Your task to perform on an android device: clear all cookies in the chrome app Image 0: 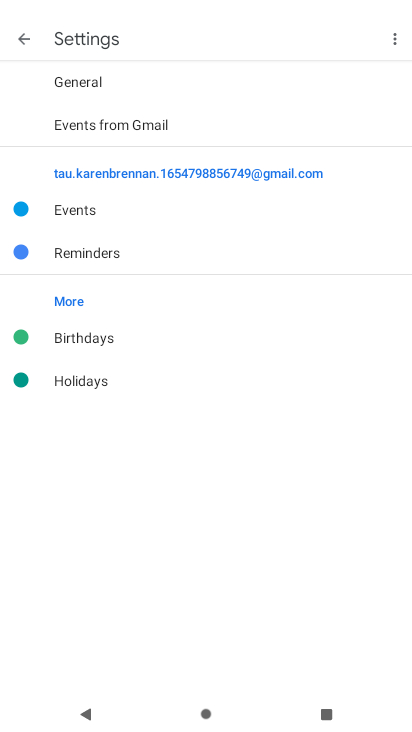
Step 0: press home button
Your task to perform on an android device: clear all cookies in the chrome app Image 1: 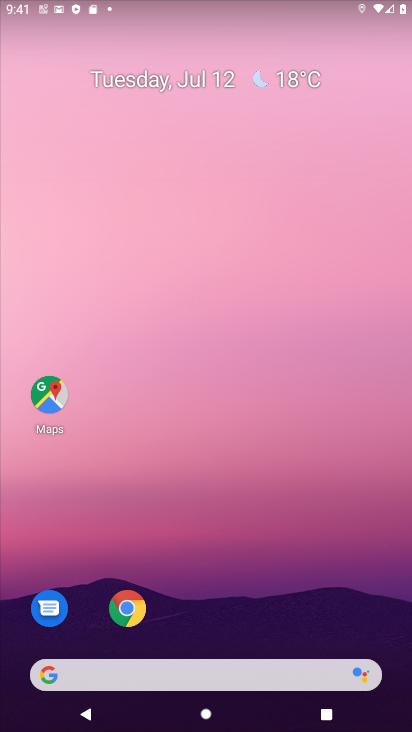
Step 1: click (127, 607)
Your task to perform on an android device: clear all cookies in the chrome app Image 2: 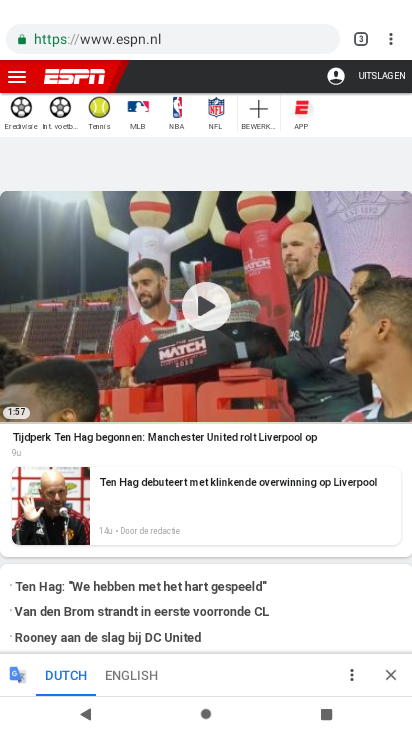
Step 2: click (392, 37)
Your task to perform on an android device: clear all cookies in the chrome app Image 3: 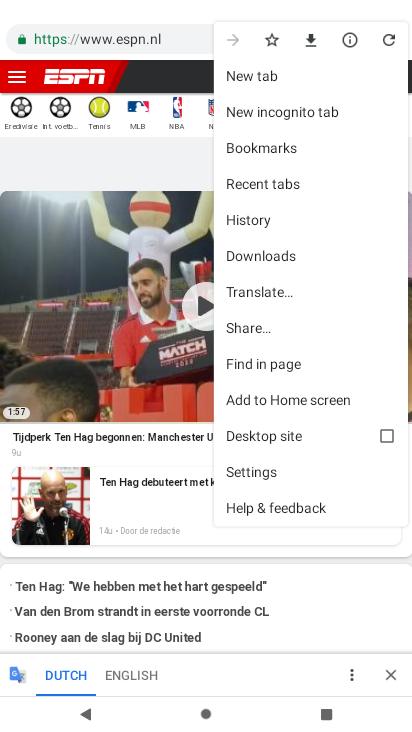
Step 3: click (258, 221)
Your task to perform on an android device: clear all cookies in the chrome app Image 4: 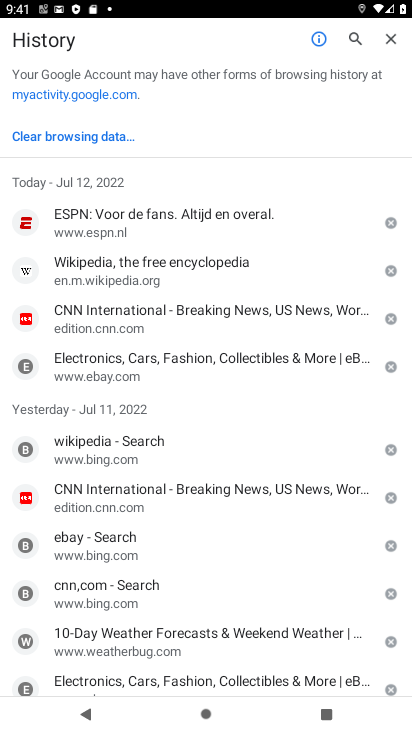
Step 4: click (88, 134)
Your task to perform on an android device: clear all cookies in the chrome app Image 5: 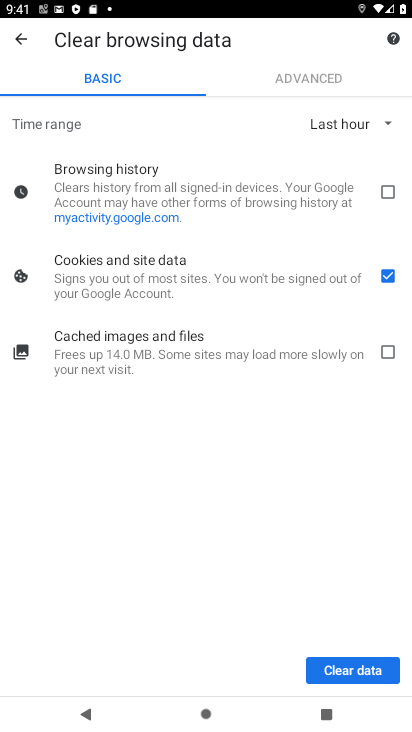
Step 5: click (391, 121)
Your task to perform on an android device: clear all cookies in the chrome app Image 6: 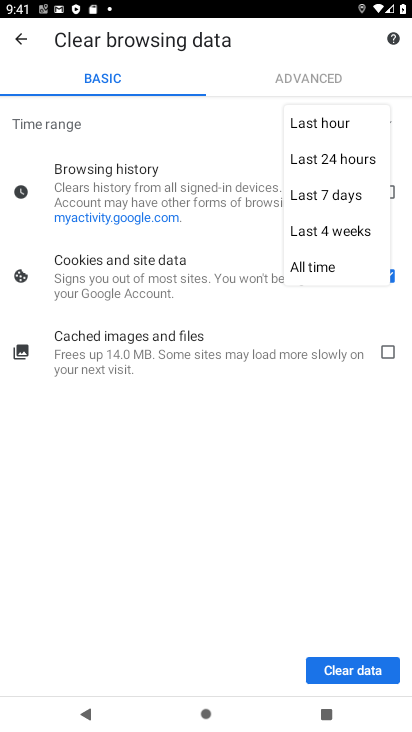
Step 6: click (322, 263)
Your task to perform on an android device: clear all cookies in the chrome app Image 7: 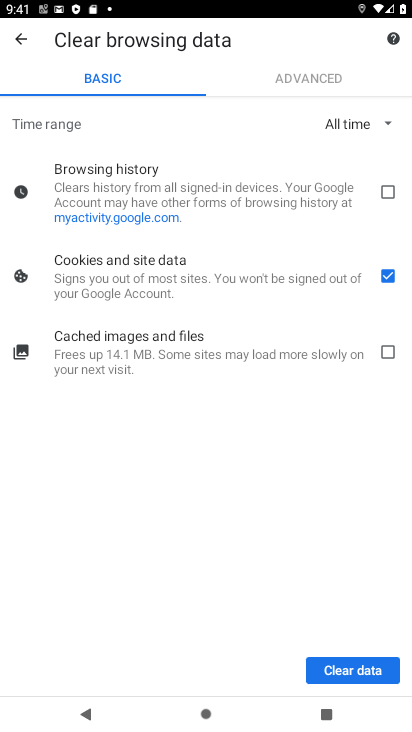
Step 7: click (349, 673)
Your task to perform on an android device: clear all cookies in the chrome app Image 8: 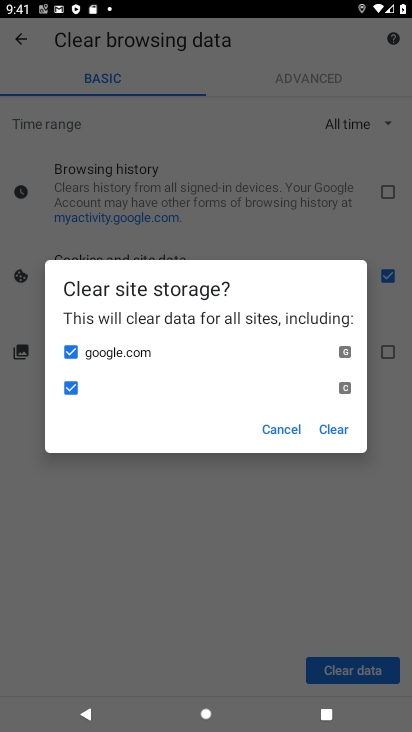
Step 8: click (334, 428)
Your task to perform on an android device: clear all cookies in the chrome app Image 9: 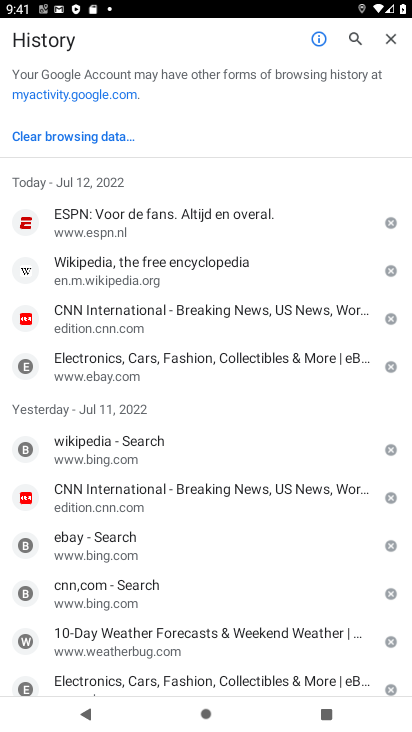
Step 9: task complete